Your task to perform on an android device: change the clock style Image 0: 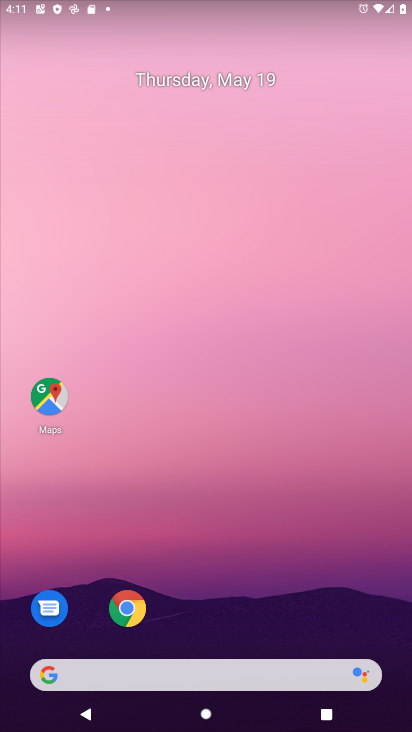
Step 0: drag from (248, 616) to (287, 203)
Your task to perform on an android device: change the clock style Image 1: 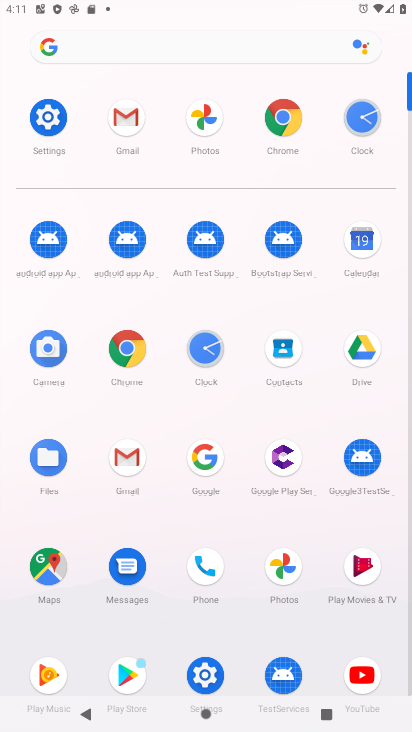
Step 1: click (371, 126)
Your task to perform on an android device: change the clock style Image 2: 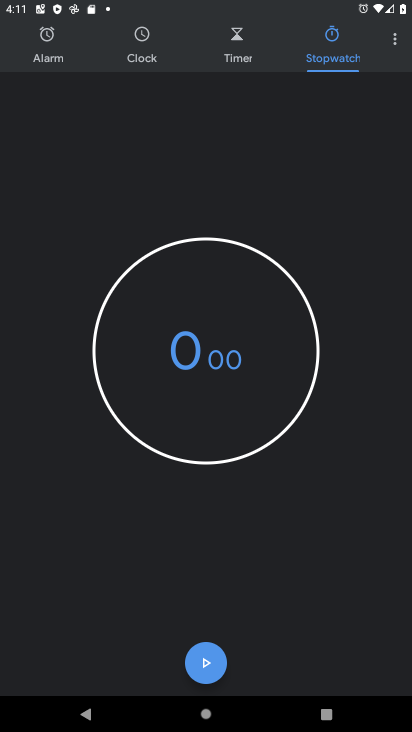
Step 2: click (388, 59)
Your task to perform on an android device: change the clock style Image 3: 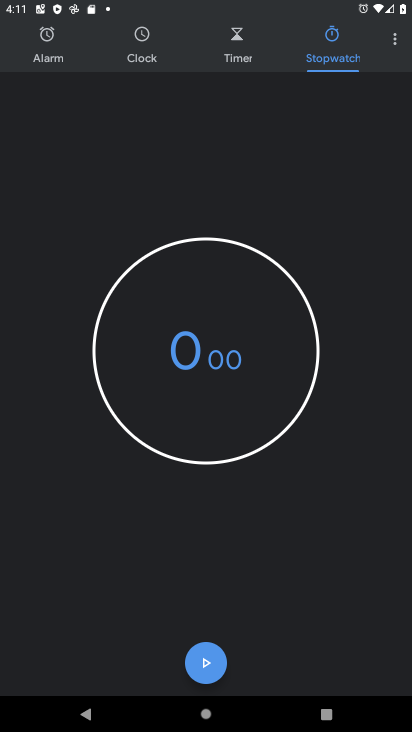
Step 3: click (391, 50)
Your task to perform on an android device: change the clock style Image 4: 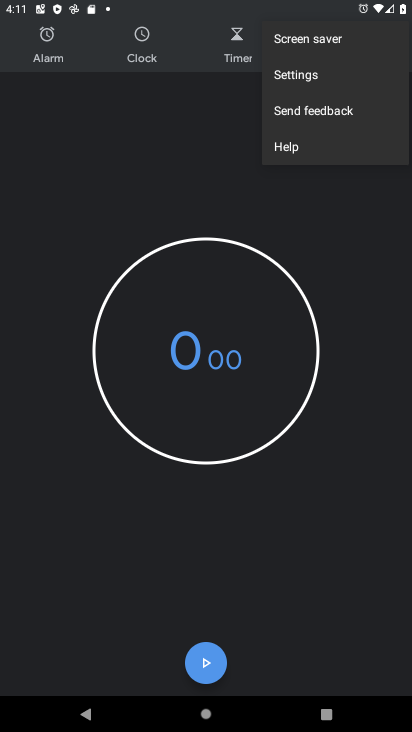
Step 4: click (349, 78)
Your task to perform on an android device: change the clock style Image 5: 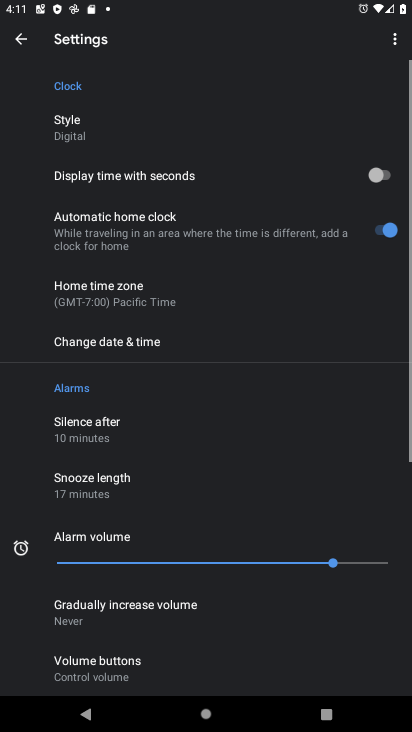
Step 5: click (162, 134)
Your task to perform on an android device: change the clock style Image 6: 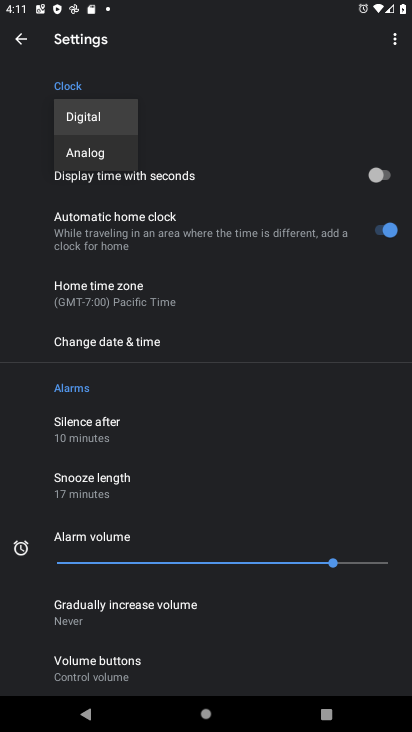
Step 6: click (99, 155)
Your task to perform on an android device: change the clock style Image 7: 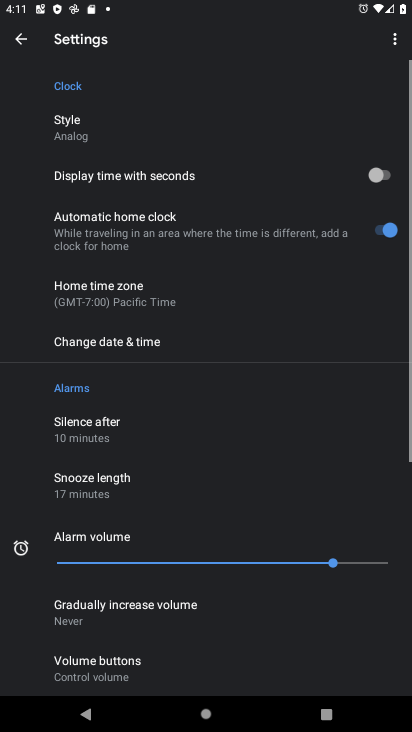
Step 7: task complete